Your task to perform on an android device: turn off smart reply in the gmail app Image 0: 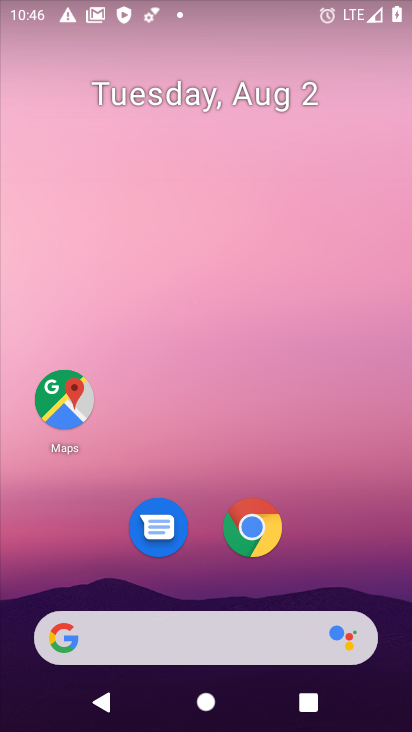
Step 0: drag from (191, 597) to (187, 58)
Your task to perform on an android device: turn off smart reply in the gmail app Image 1: 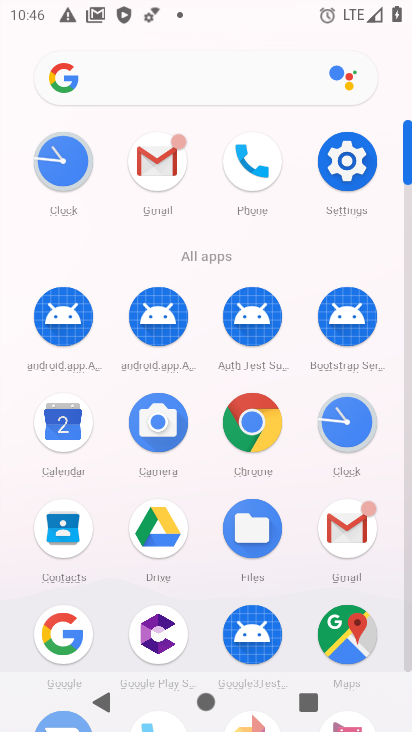
Step 1: click (156, 150)
Your task to perform on an android device: turn off smart reply in the gmail app Image 2: 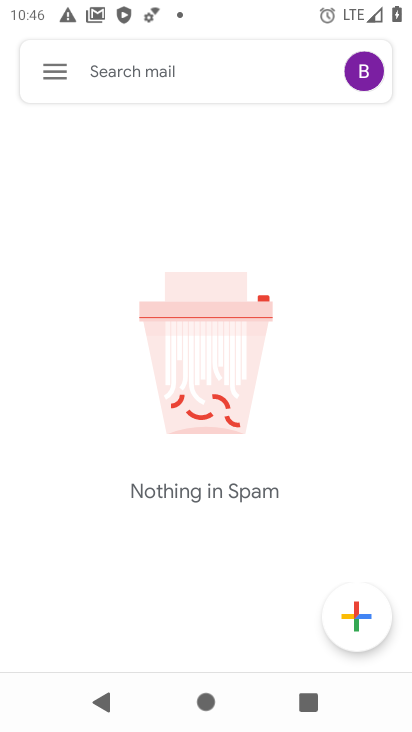
Step 2: click (49, 74)
Your task to perform on an android device: turn off smart reply in the gmail app Image 3: 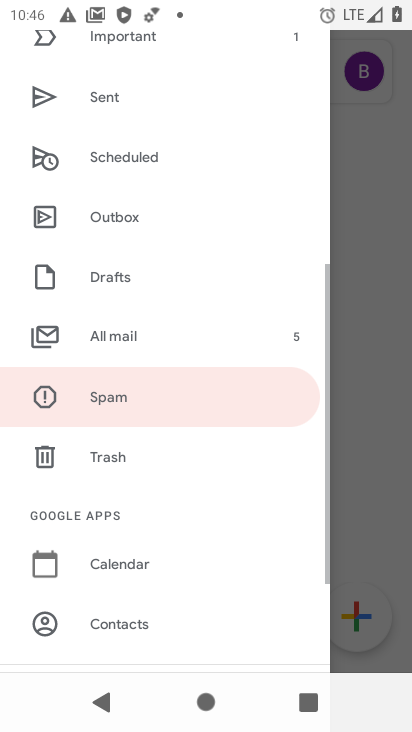
Step 3: drag from (126, 580) to (130, 107)
Your task to perform on an android device: turn off smart reply in the gmail app Image 4: 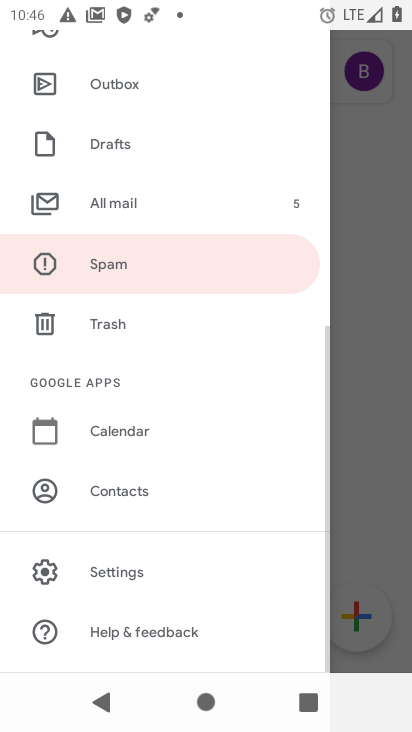
Step 4: click (161, 566)
Your task to perform on an android device: turn off smart reply in the gmail app Image 5: 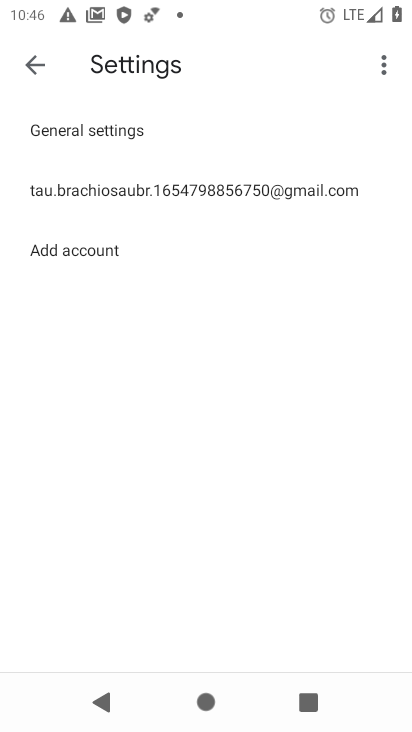
Step 5: click (119, 193)
Your task to perform on an android device: turn off smart reply in the gmail app Image 6: 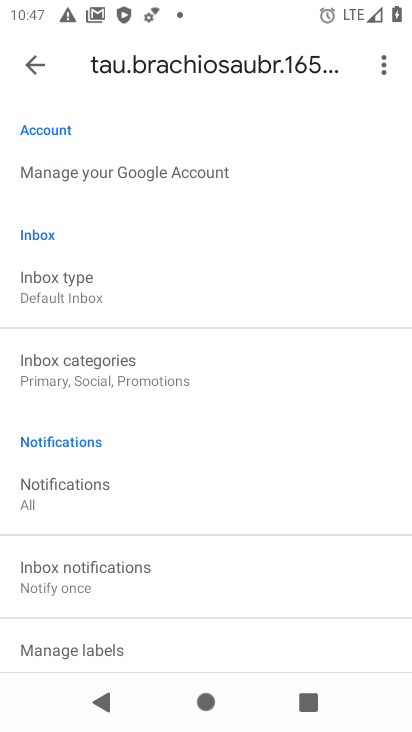
Step 6: drag from (146, 602) to (190, 14)
Your task to perform on an android device: turn off smart reply in the gmail app Image 7: 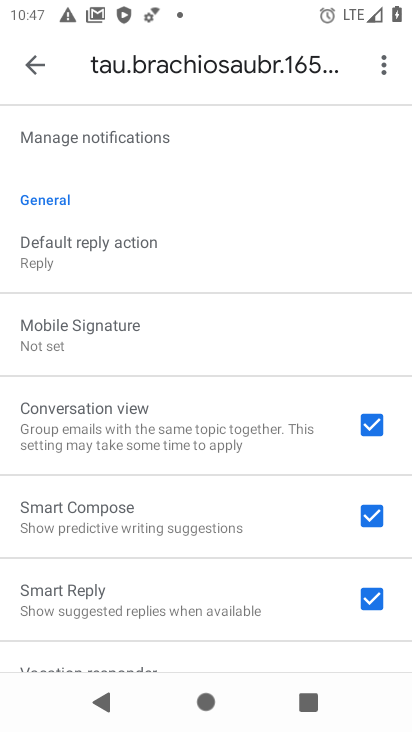
Step 7: click (367, 594)
Your task to perform on an android device: turn off smart reply in the gmail app Image 8: 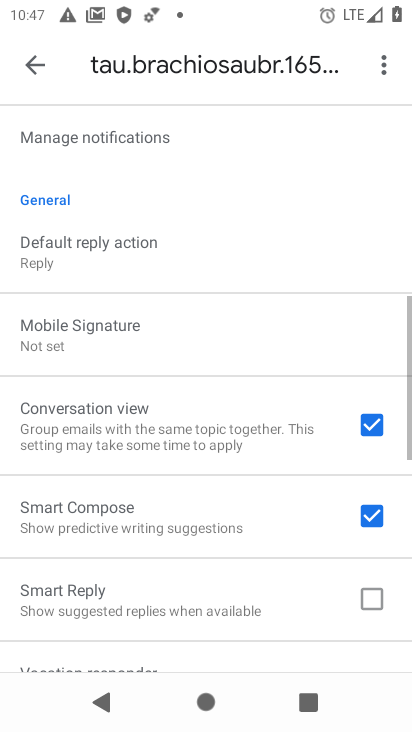
Step 8: task complete